Your task to perform on an android device: When is my next appointment? Image 0: 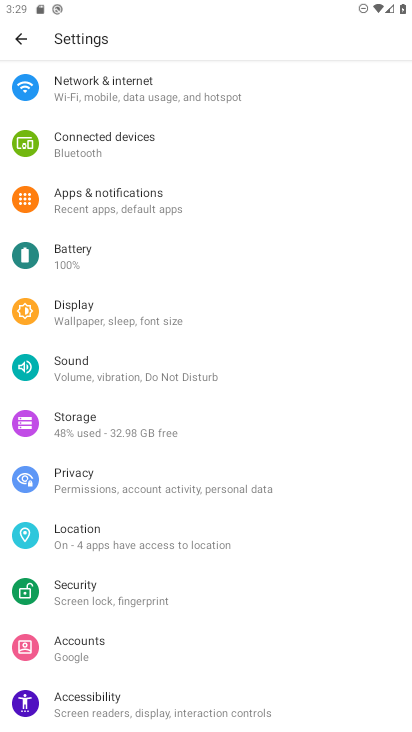
Step 0: press home button
Your task to perform on an android device: When is my next appointment? Image 1: 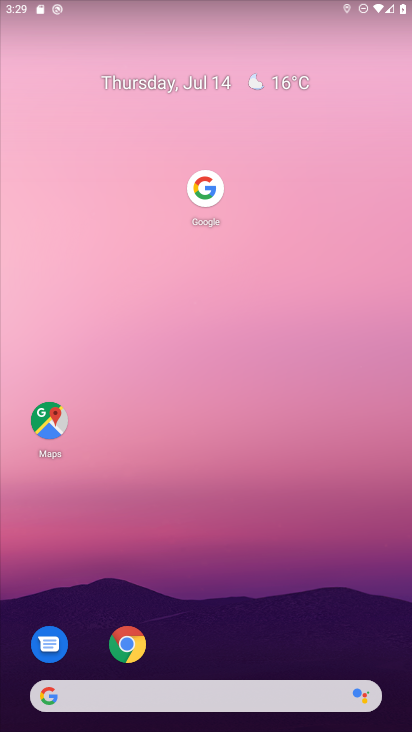
Step 1: drag from (223, 648) to (182, 397)
Your task to perform on an android device: When is my next appointment? Image 2: 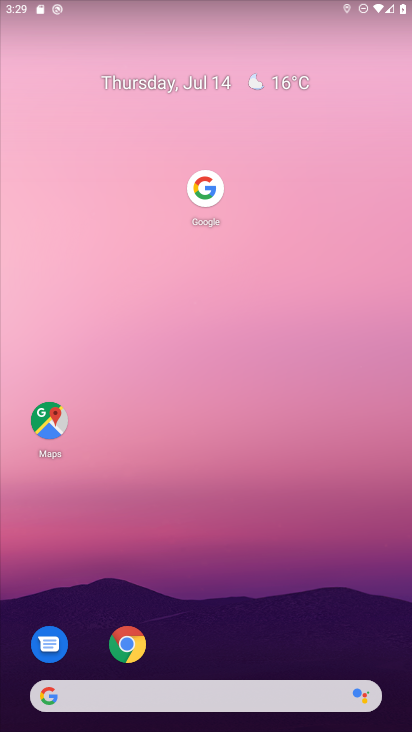
Step 2: drag from (235, 658) to (223, 238)
Your task to perform on an android device: When is my next appointment? Image 3: 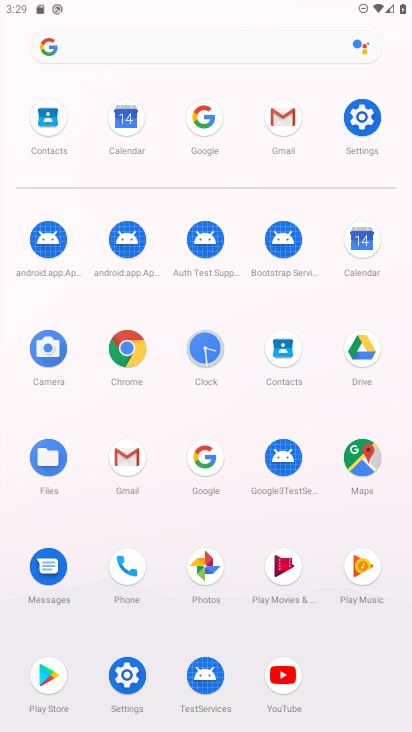
Step 3: click (355, 247)
Your task to perform on an android device: When is my next appointment? Image 4: 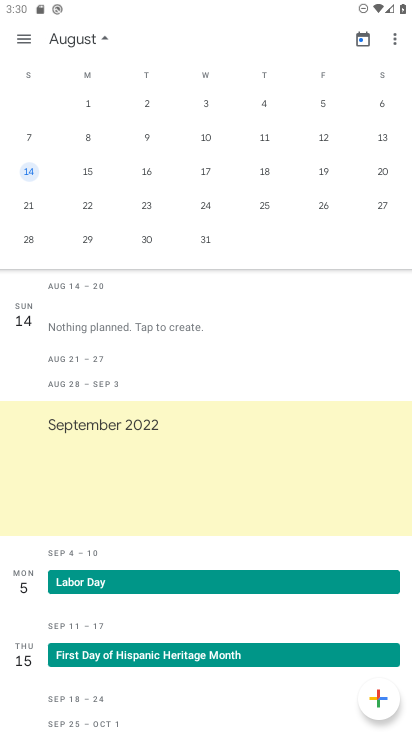
Step 4: task complete